Your task to perform on an android device: Do I have any events today? Image 0: 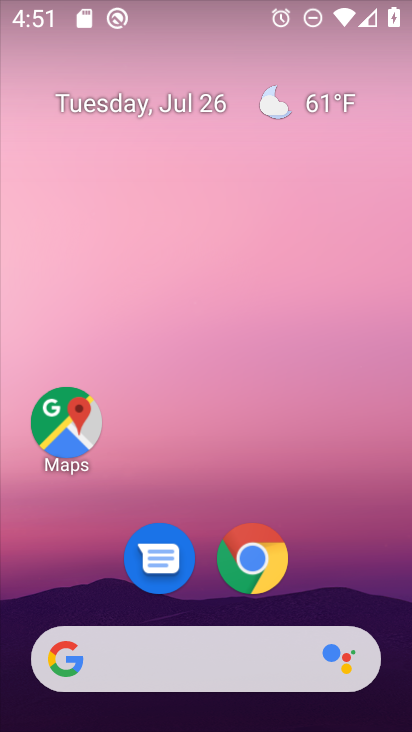
Step 0: drag from (103, 592) to (218, 1)
Your task to perform on an android device: Do I have any events today? Image 1: 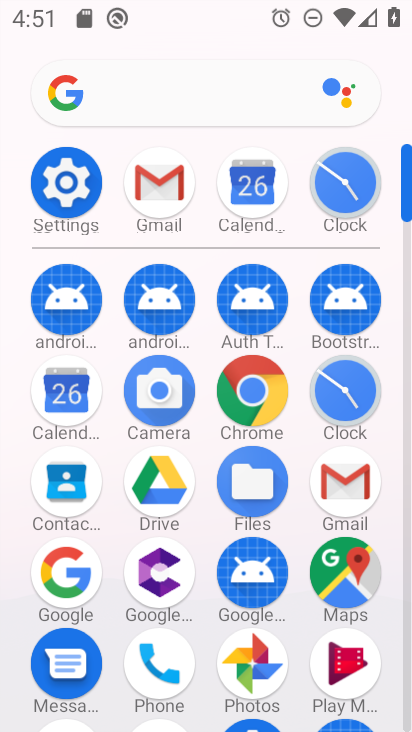
Step 1: click (189, 97)
Your task to perform on an android device: Do I have any events today? Image 2: 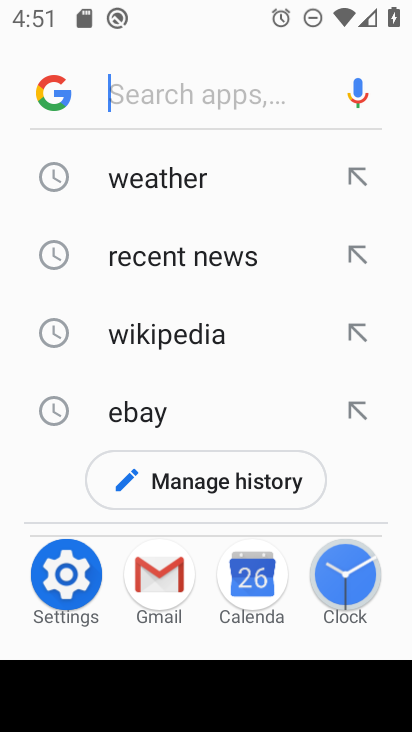
Step 2: press back button
Your task to perform on an android device: Do I have any events today? Image 3: 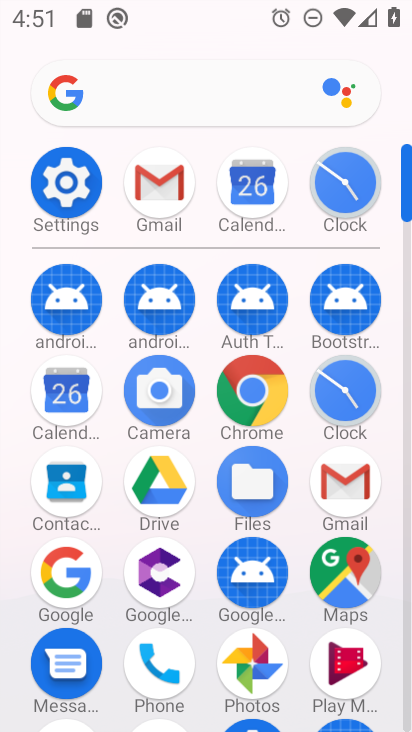
Step 3: click (74, 405)
Your task to perform on an android device: Do I have any events today? Image 4: 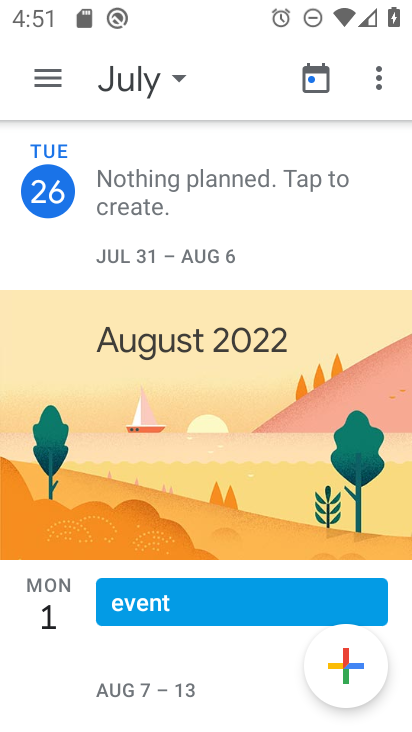
Step 4: click (130, 88)
Your task to perform on an android device: Do I have any events today? Image 5: 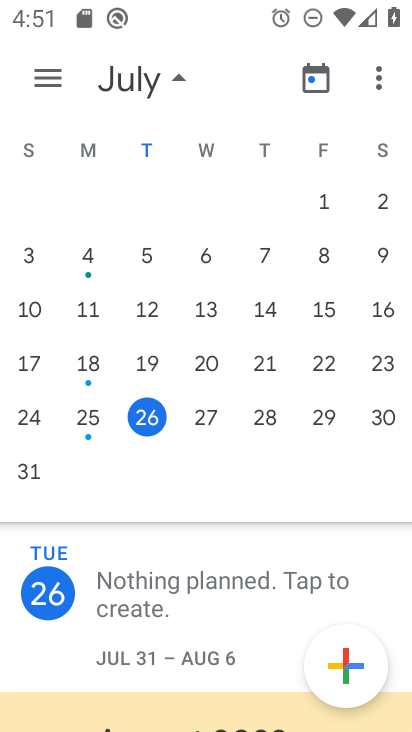
Step 5: click (140, 427)
Your task to perform on an android device: Do I have any events today? Image 6: 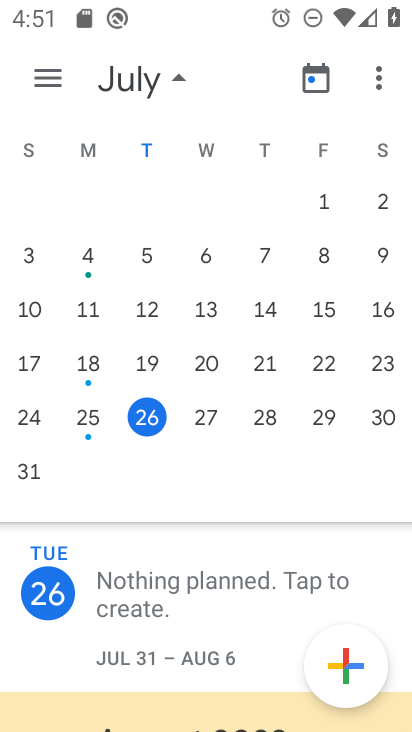
Step 6: task complete